Your task to perform on an android device: Show the shopping cart on bestbuy. Add "bose soundsport free" to the cart on bestbuy, then select checkout. Image 0: 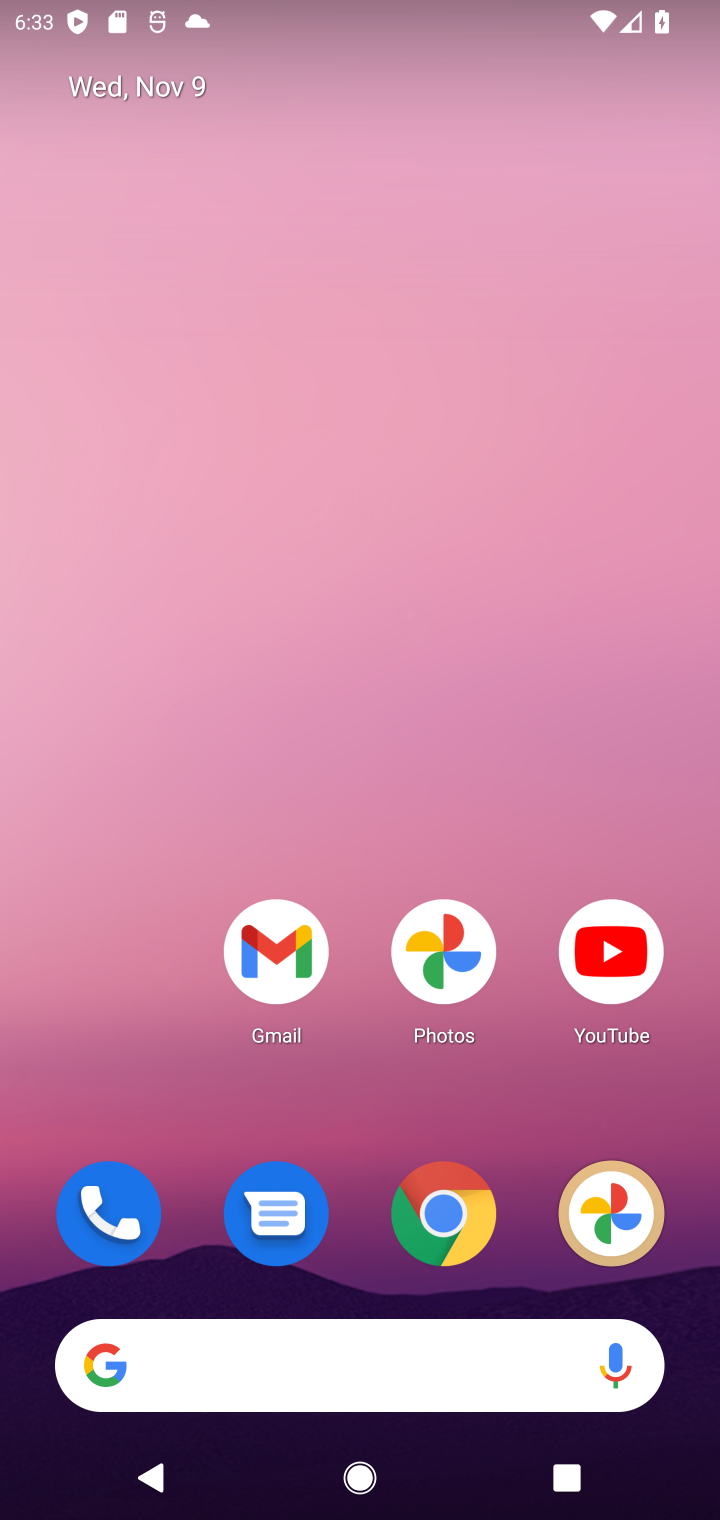
Step 0: click (432, 1250)
Your task to perform on an android device: Show the shopping cart on bestbuy. Add "bose soundsport free" to the cart on bestbuy, then select checkout. Image 1: 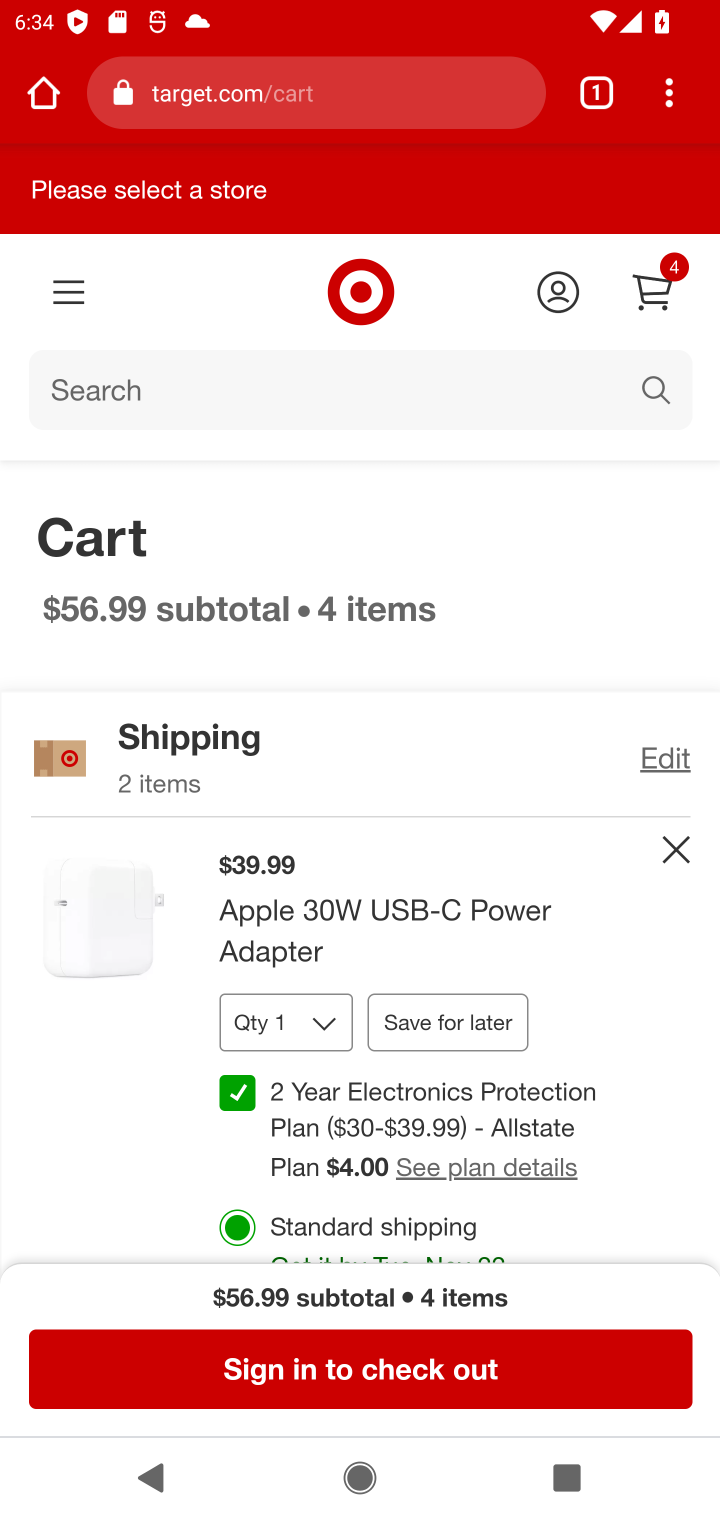
Step 1: drag from (100, 1061) to (115, 463)
Your task to perform on an android device: Show the shopping cart on bestbuy. Add "bose soundsport free" to the cart on bestbuy, then select checkout. Image 2: 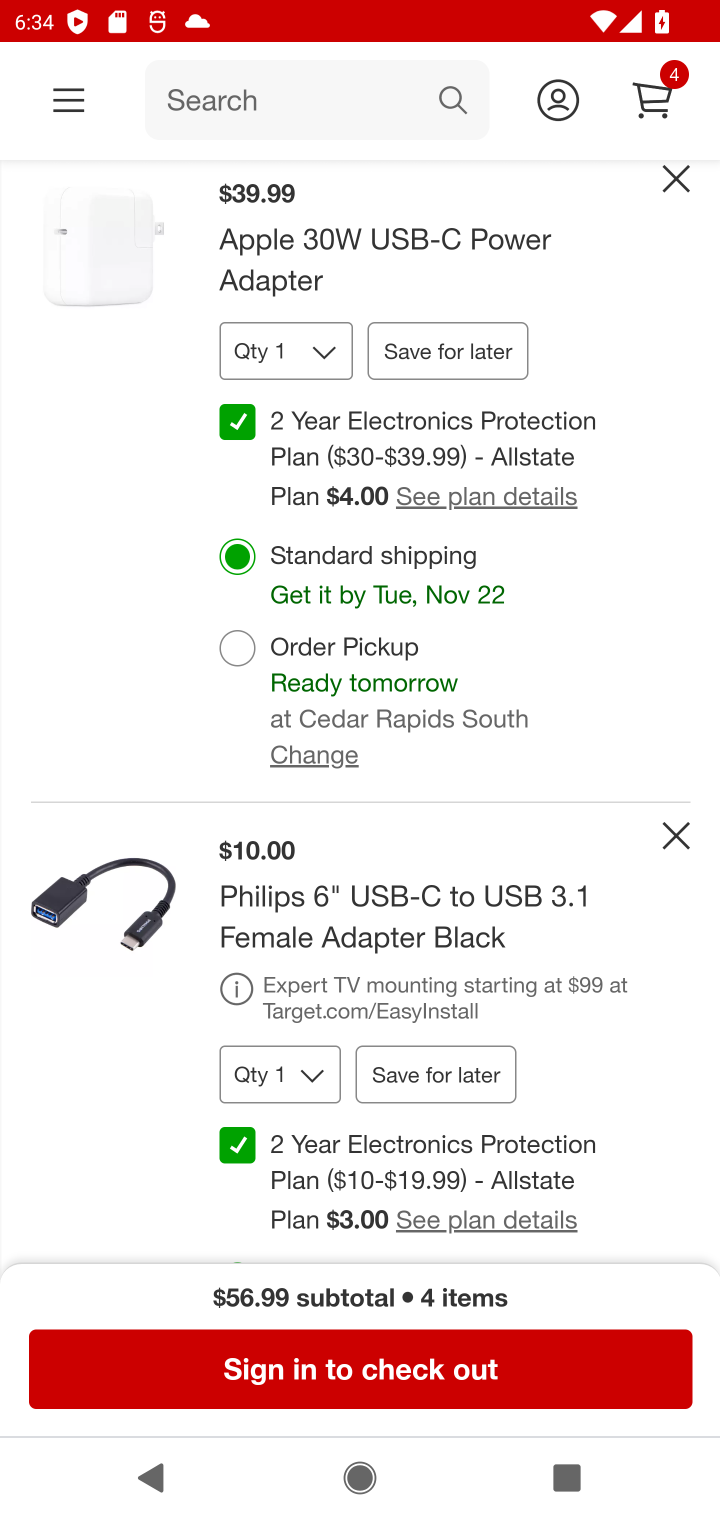
Step 2: click (517, 1380)
Your task to perform on an android device: Show the shopping cart on bestbuy. Add "bose soundsport free" to the cart on bestbuy, then select checkout. Image 3: 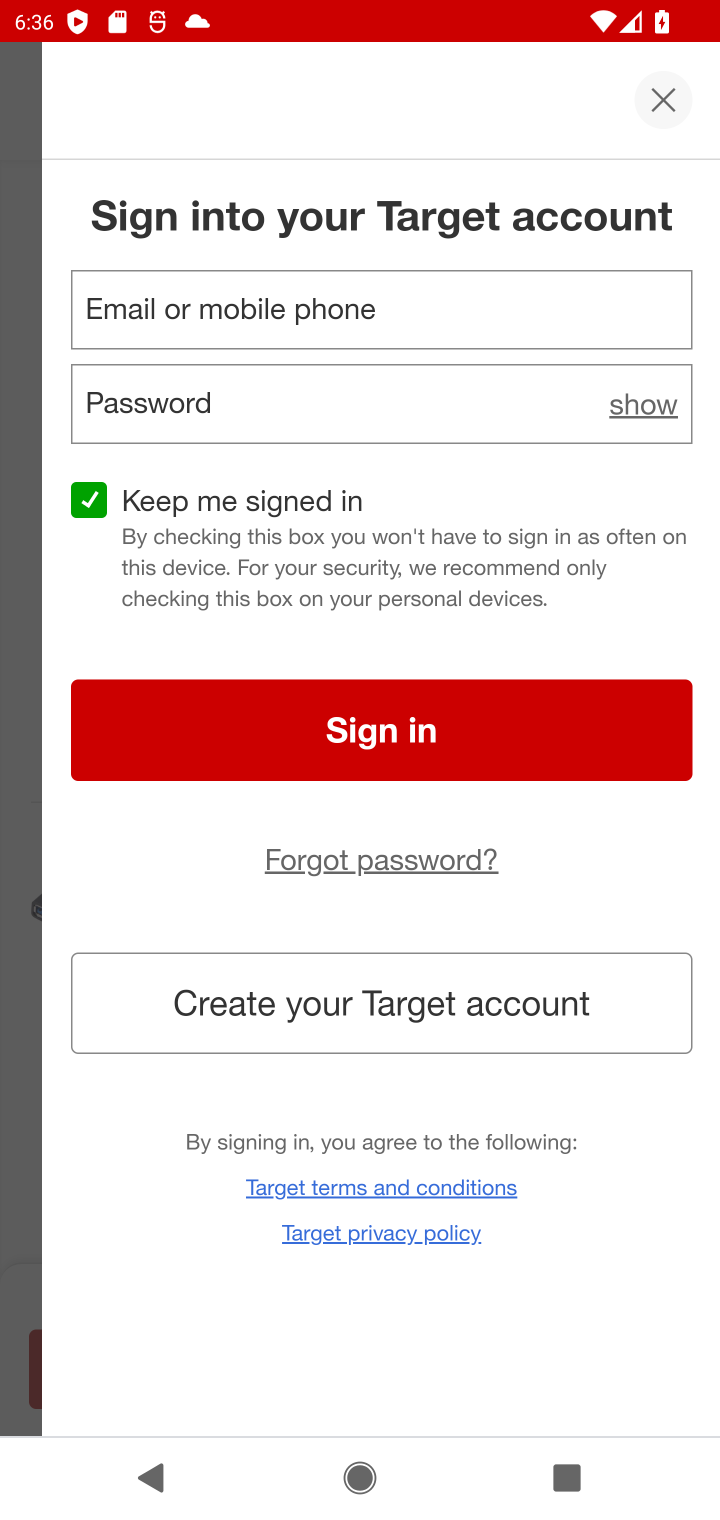
Step 3: task complete